Your task to perform on an android device: Turn on the flashlight Image 0: 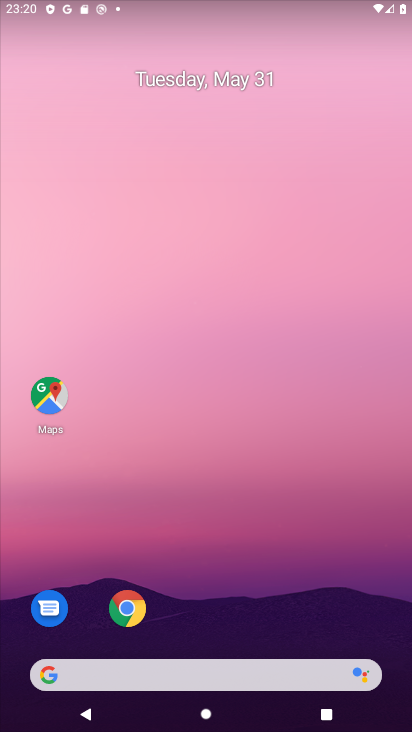
Step 0: drag from (335, 1) to (388, 513)
Your task to perform on an android device: Turn on the flashlight Image 1: 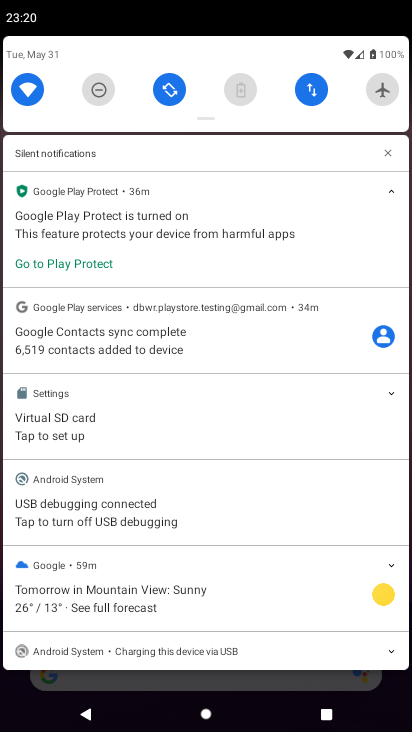
Step 1: task complete